Your task to perform on an android device: Search for the best selling phone on AliExpress Image 0: 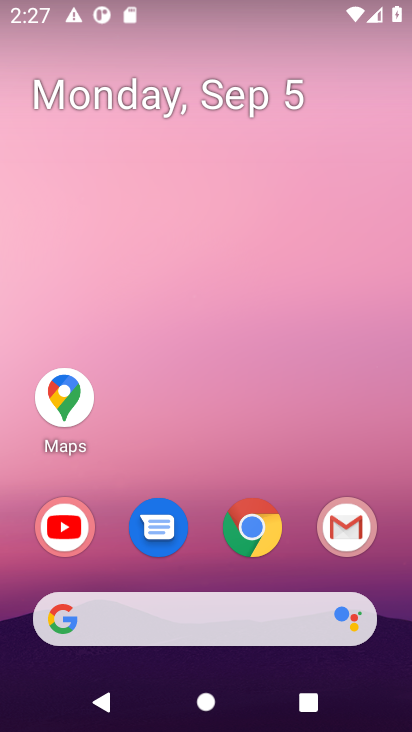
Step 0: drag from (207, 436) to (284, 47)
Your task to perform on an android device: Search for the best selling phone on AliExpress Image 1: 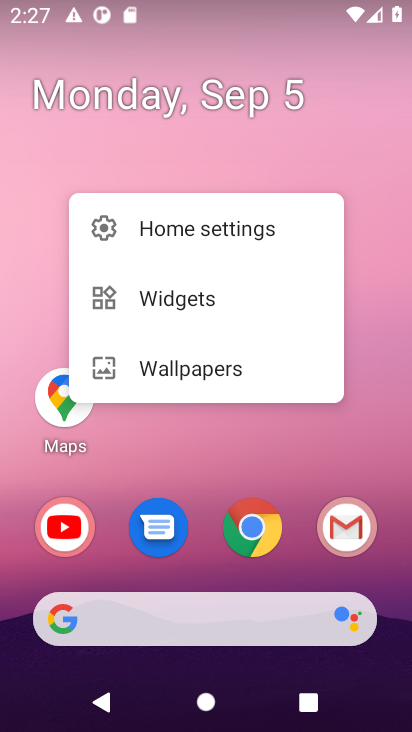
Step 1: click (249, 535)
Your task to perform on an android device: Search for the best selling phone on AliExpress Image 2: 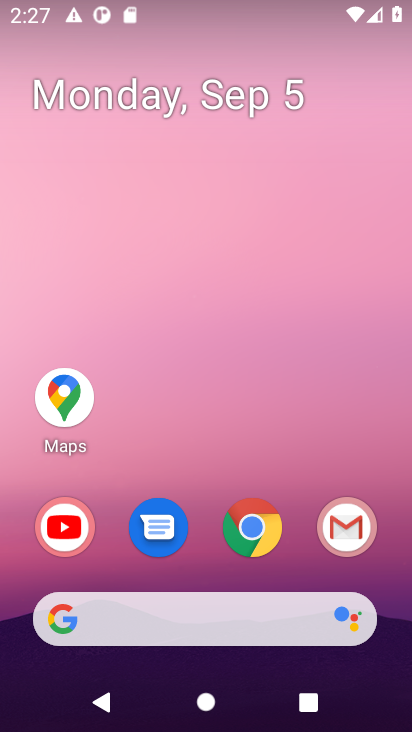
Step 2: click (249, 535)
Your task to perform on an android device: Search for the best selling phone on AliExpress Image 3: 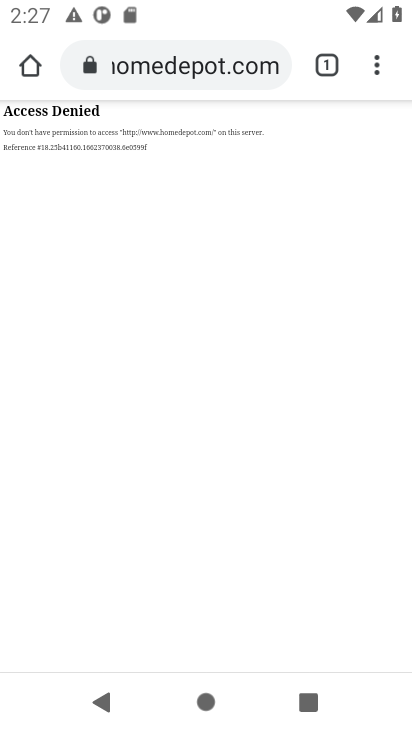
Step 3: click (176, 68)
Your task to perform on an android device: Search for the best selling phone on AliExpress Image 4: 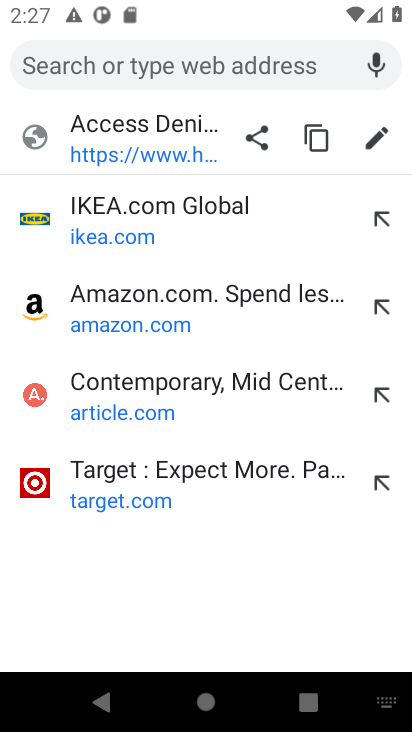
Step 4: type "Ali Express"
Your task to perform on an android device: Search for the best selling phone on AliExpress Image 5: 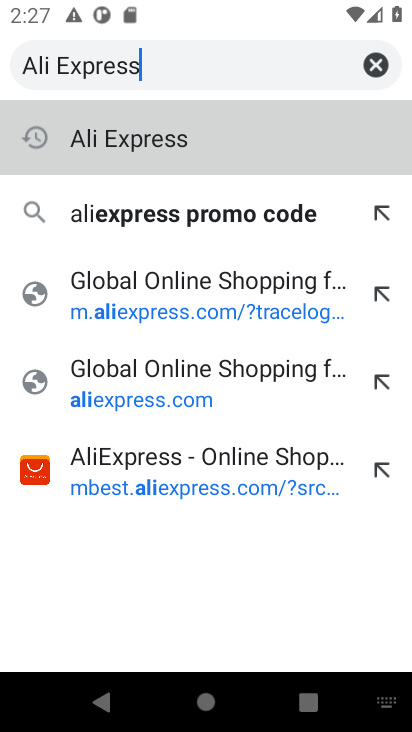
Step 5: click (145, 144)
Your task to perform on an android device: Search for the best selling phone on AliExpress Image 6: 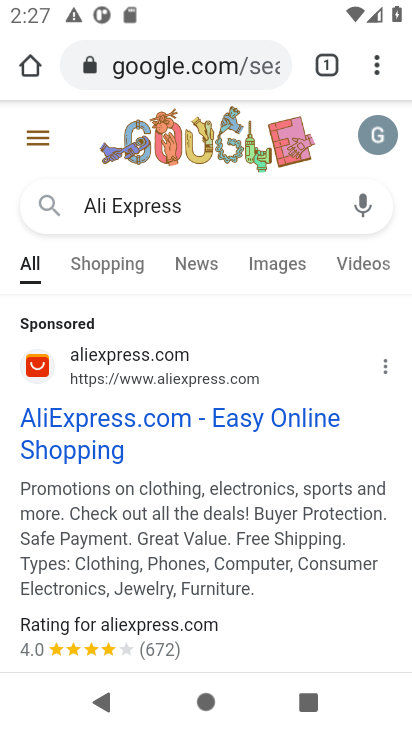
Step 6: click (95, 449)
Your task to perform on an android device: Search for the best selling phone on AliExpress Image 7: 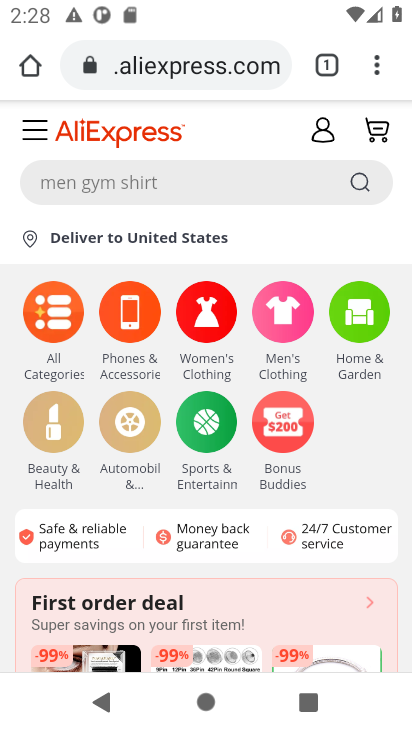
Step 7: click (113, 189)
Your task to perform on an android device: Search for the best selling phone on AliExpress Image 8: 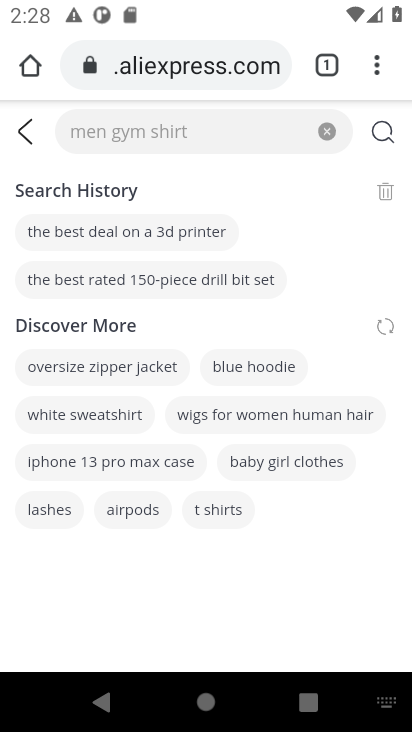
Step 8: type "best selling phone"
Your task to perform on an android device: Search for the best selling phone on AliExpress Image 9: 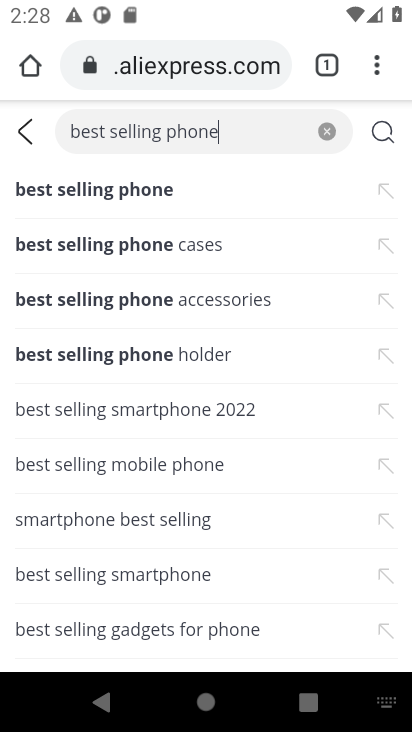
Step 9: click (152, 187)
Your task to perform on an android device: Search for the best selling phone on AliExpress Image 10: 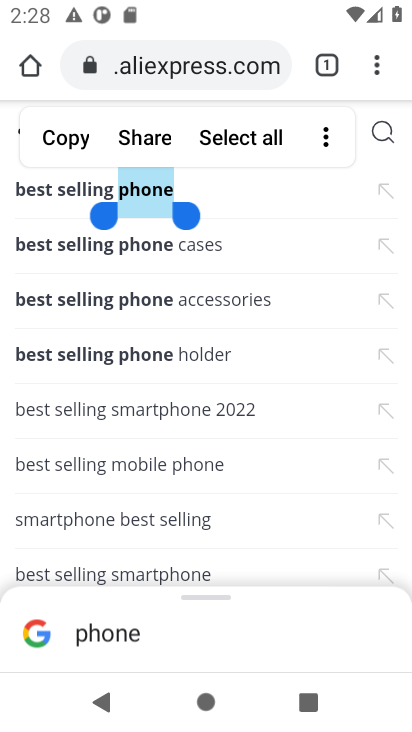
Step 10: click (37, 195)
Your task to perform on an android device: Search for the best selling phone on AliExpress Image 11: 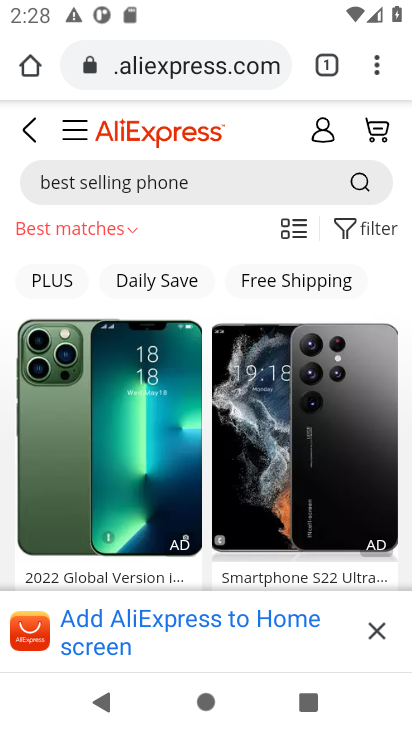
Step 11: task complete